Your task to perform on an android device: Go to Amazon Image 0: 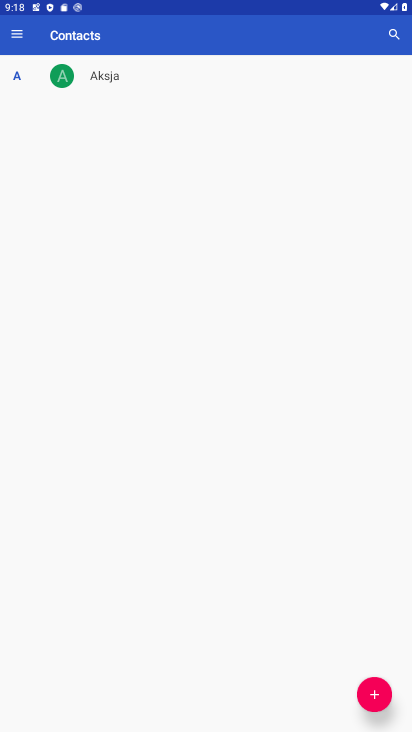
Step 0: press home button
Your task to perform on an android device: Go to Amazon Image 1: 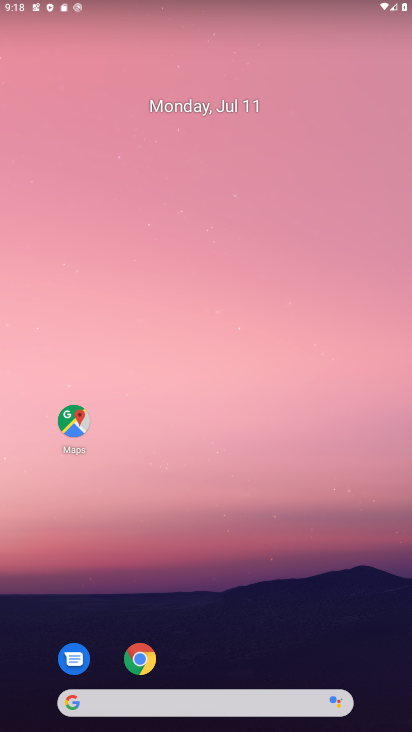
Step 1: drag from (225, 729) to (225, 105)
Your task to perform on an android device: Go to Amazon Image 2: 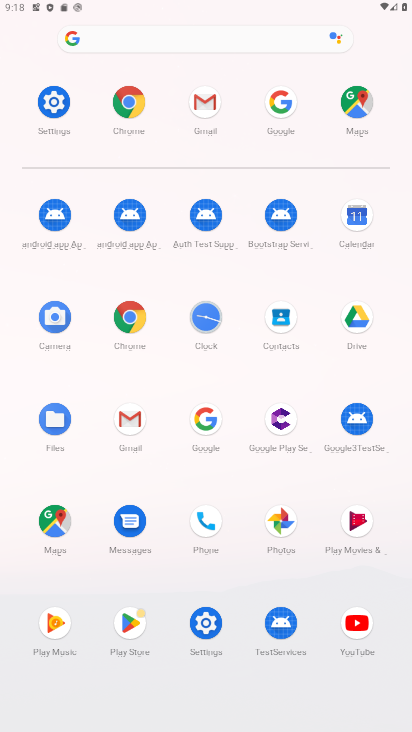
Step 2: click (126, 95)
Your task to perform on an android device: Go to Amazon Image 3: 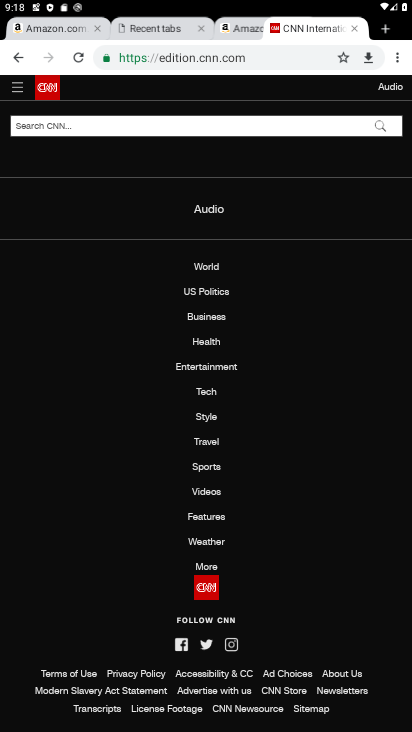
Step 3: click (396, 61)
Your task to perform on an android device: Go to Amazon Image 4: 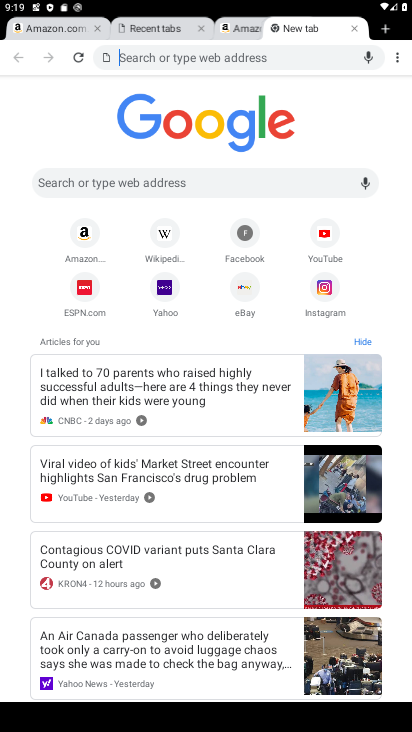
Step 4: click (86, 236)
Your task to perform on an android device: Go to Amazon Image 5: 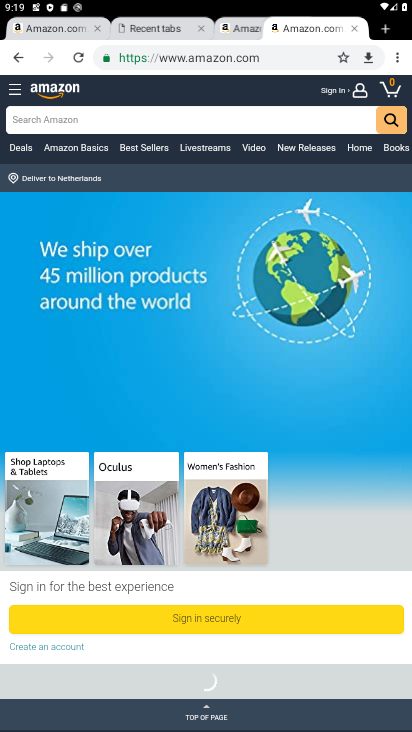
Step 5: task complete